Your task to perform on an android device: Open battery settings Image 0: 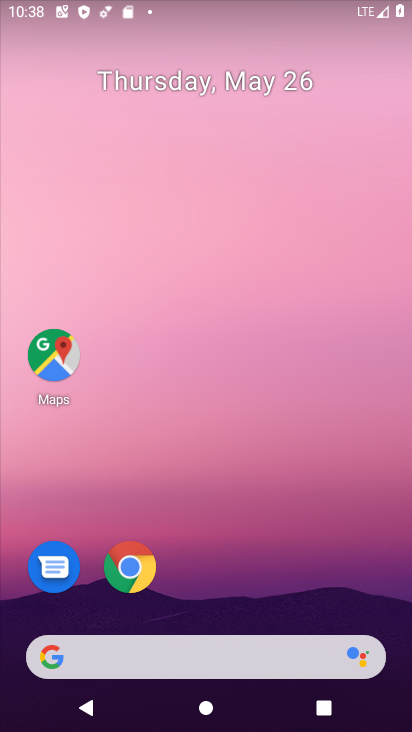
Step 0: drag from (235, 671) to (213, 306)
Your task to perform on an android device: Open battery settings Image 1: 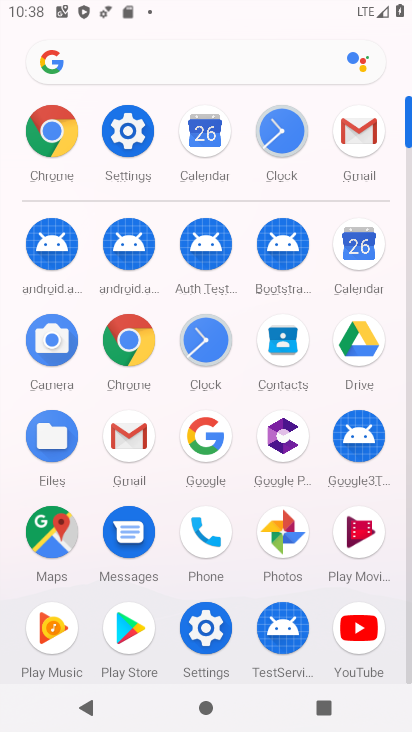
Step 1: click (152, 143)
Your task to perform on an android device: Open battery settings Image 2: 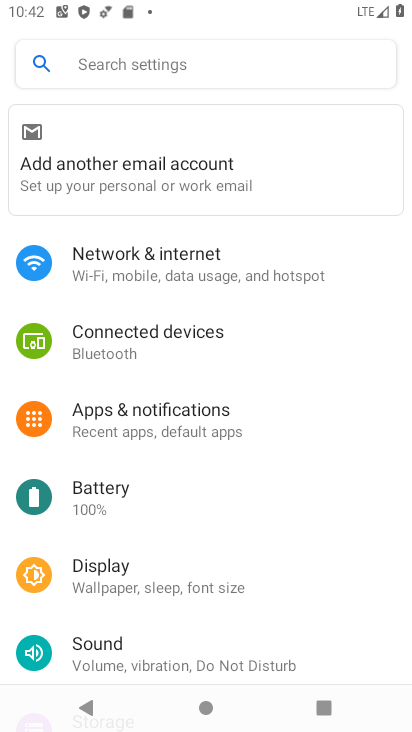
Step 2: click (162, 498)
Your task to perform on an android device: Open battery settings Image 3: 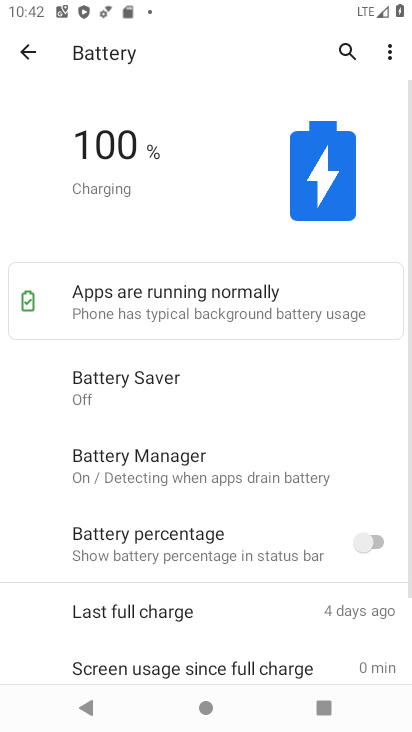
Step 3: task complete